Your task to perform on an android device: stop showing notifications on the lock screen Image 0: 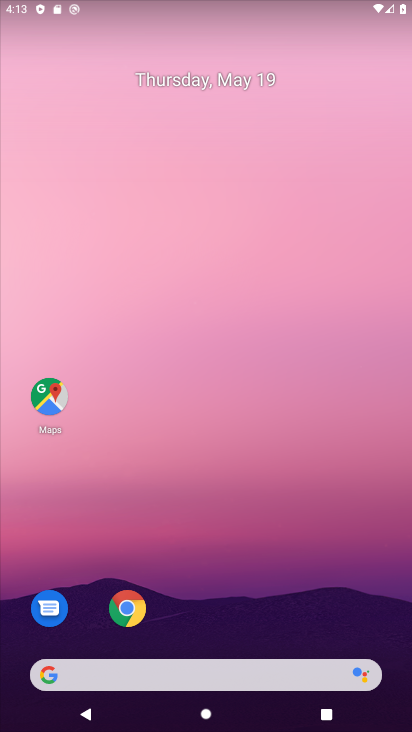
Step 0: drag from (239, 599) to (262, 142)
Your task to perform on an android device: stop showing notifications on the lock screen Image 1: 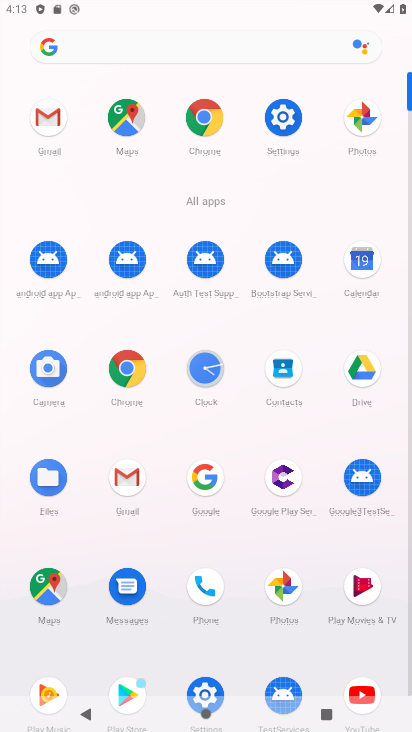
Step 1: click (284, 110)
Your task to perform on an android device: stop showing notifications on the lock screen Image 2: 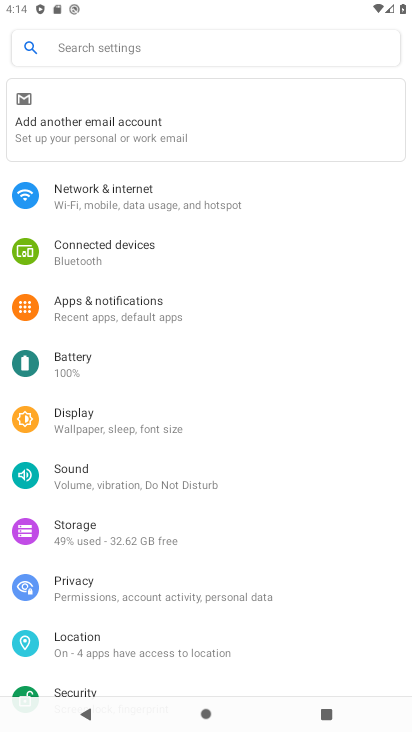
Step 2: click (92, 323)
Your task to perform on an android device: stop showing notifications on the lock screen Image 3: 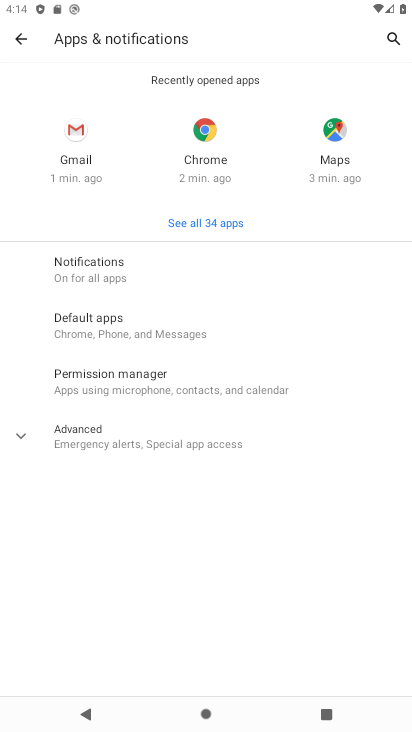
Step 3: click (108, 276)
Your task to perform on an android device: stop showing notifications on the lock screen Image 4: 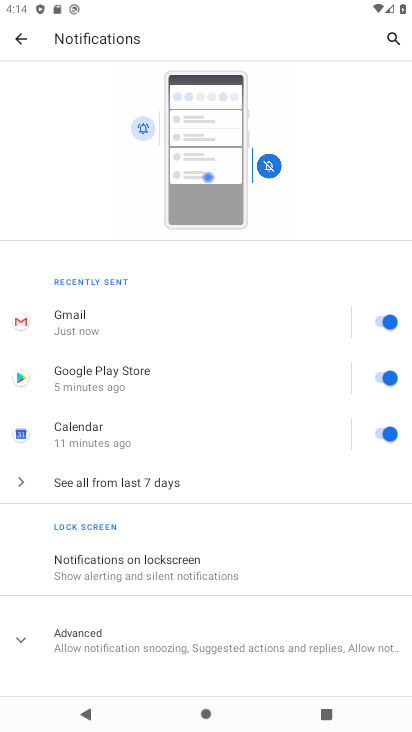
Step 4: click (142, 547)
Your task to perform on an android device: stop showing notifications on the lock screen Image 5: 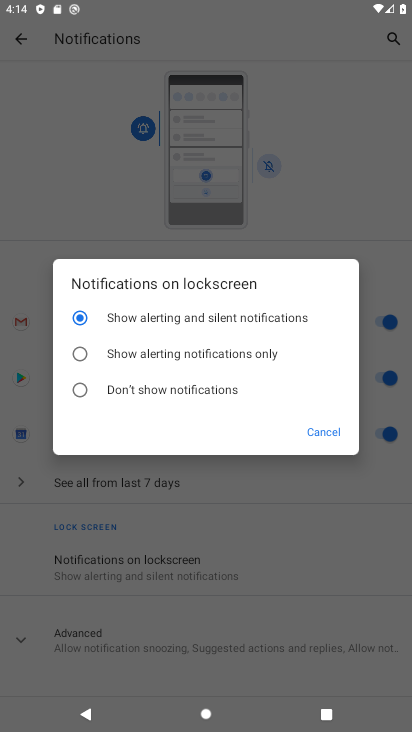
Step 5: click (188, 393)
Your task to perform on an android device: stop showing notifications on the lock screen Image 6: 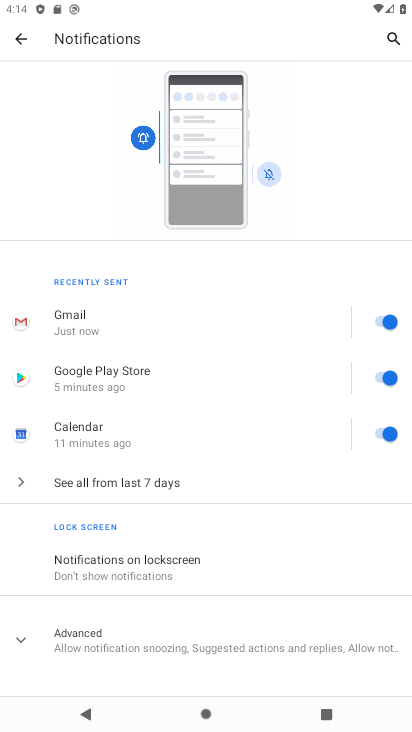
Step 6: task complete